Your task to perform on an android device: Go to ESPN.com Image 0: 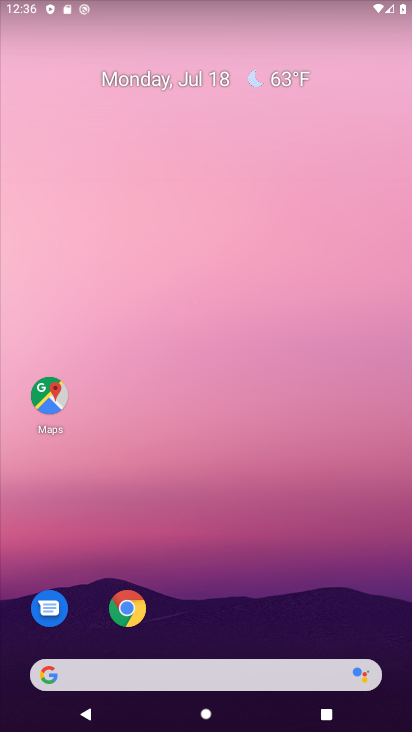
Step 0: drag from (273, 651) to (245, 104)
Your task to perform on an android device: Go to ESPN.com Image 1: 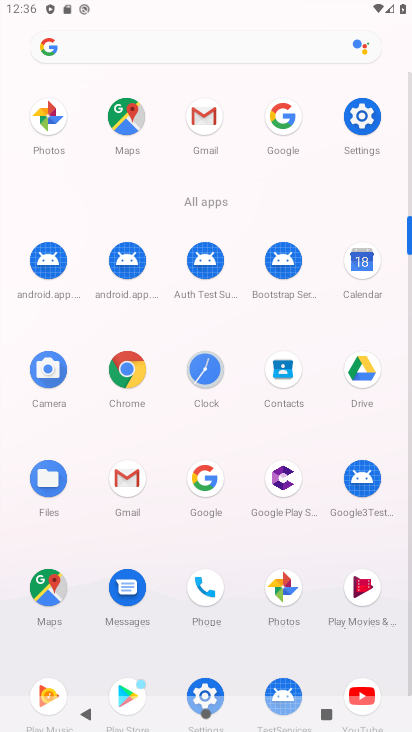
Step 1: click (139, 377)
Your task to perform on an android device: Go to ESPN.com Image 2: 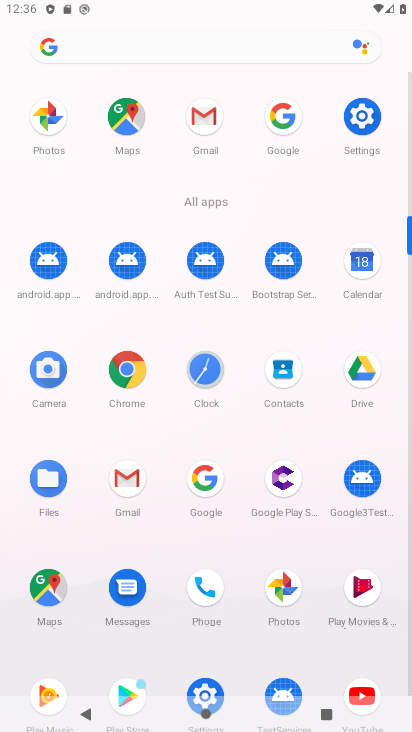
Step 2: click (132, 374)
Your task to perform on an android device: Go to ESPN.com Image 3: 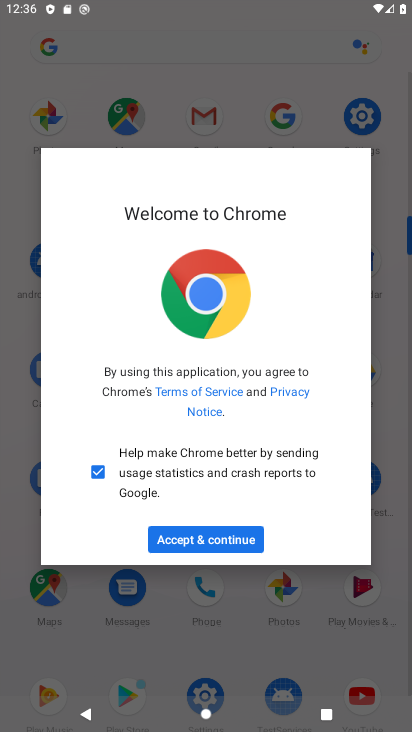
Step 3: click (240, 541)
Your task to perform on an android device: Go to ESPN.com Image 4: 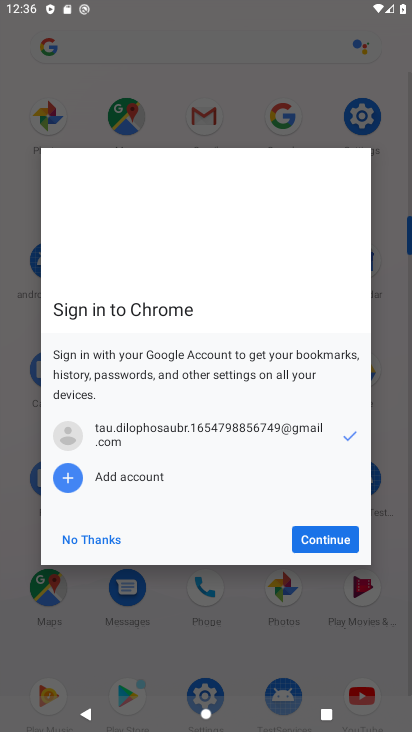
Step 4: click (342, 522)
Your task to perform on an android device: Go to ESPN.com Image 5: 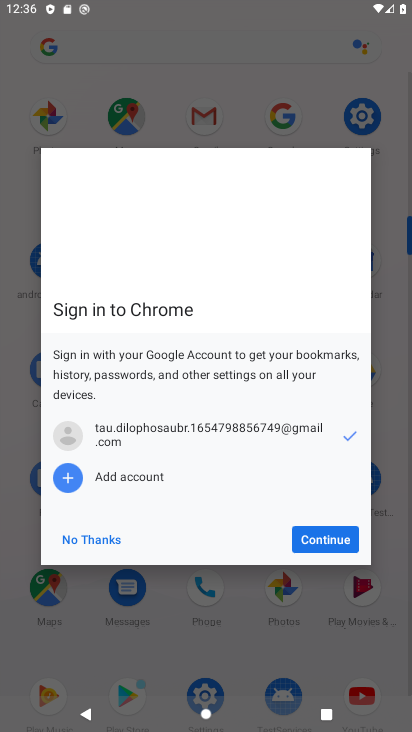
Step 5: click (94, 542)
Your task to perform on an android device: Go to ESPN.com Image 6: 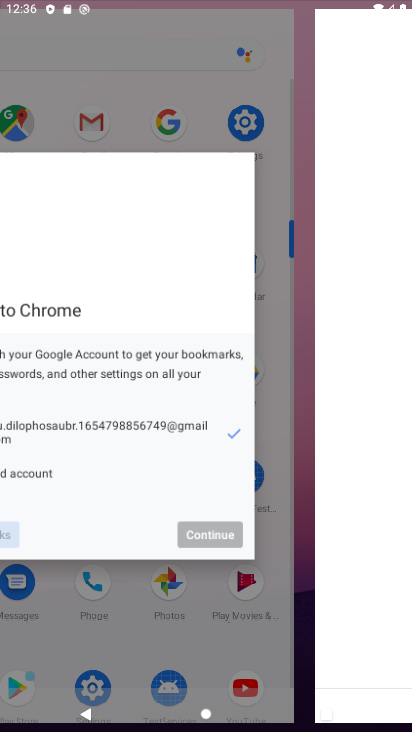
Step 6: click (86, 542)
Your task to perform on an android device: Go to ESPN.com Image 7: 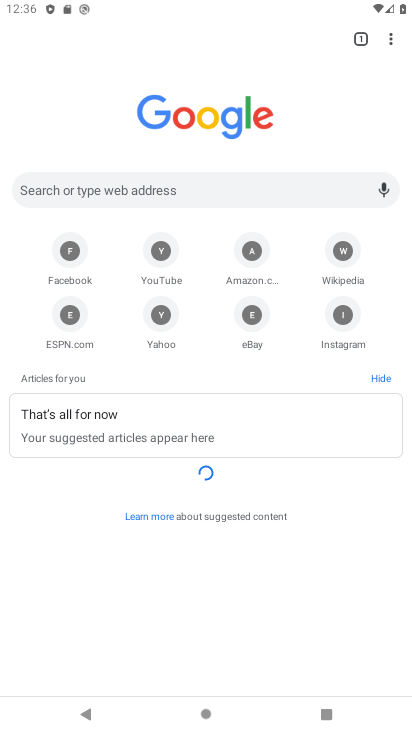
Step 7: click (85, 535)
Your task to perform on an android device: Go to ESPN.com Image 8: 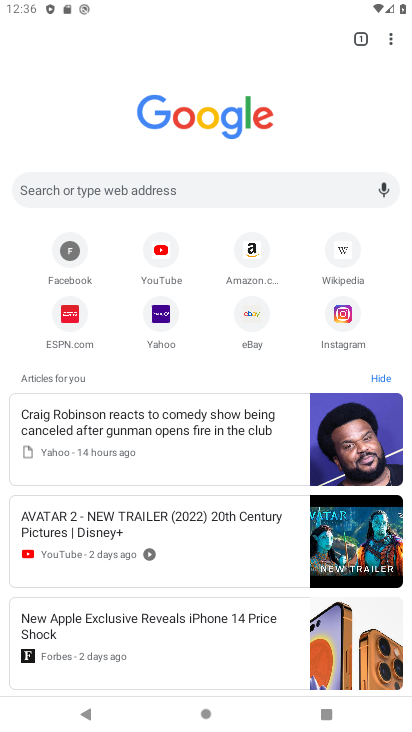
Step 8: click (70, 315)
Your task to perform on an android device: Go to ESPN.com Image 9: 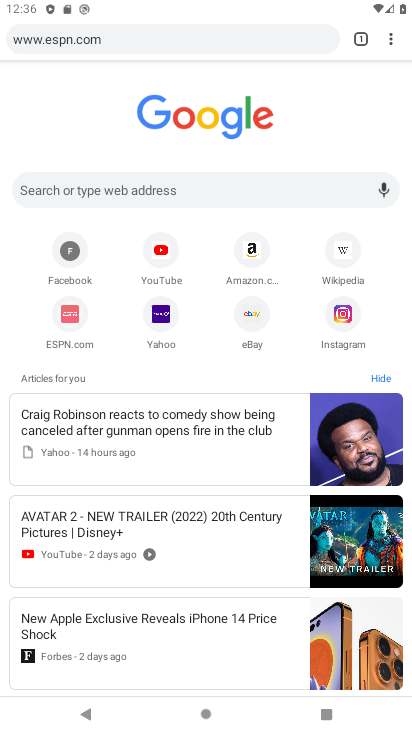
Step 9: click (65, 334)
Your task to perform on an android device: Go to ESPN.com Image 10: 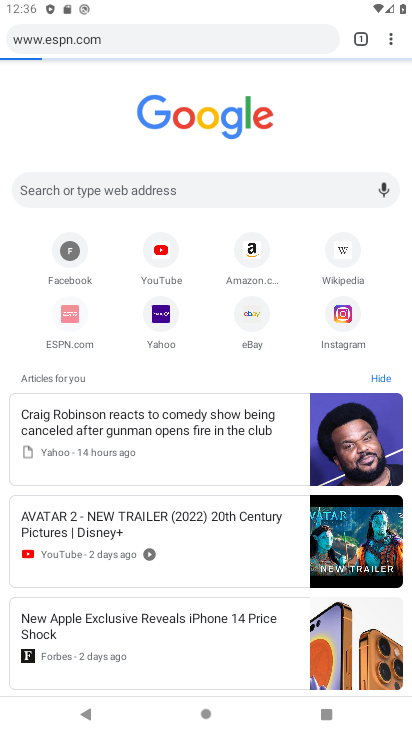
Step 10: click (88, 328)
Your task to perform on an android device: Go to ESPN.com Image 11: 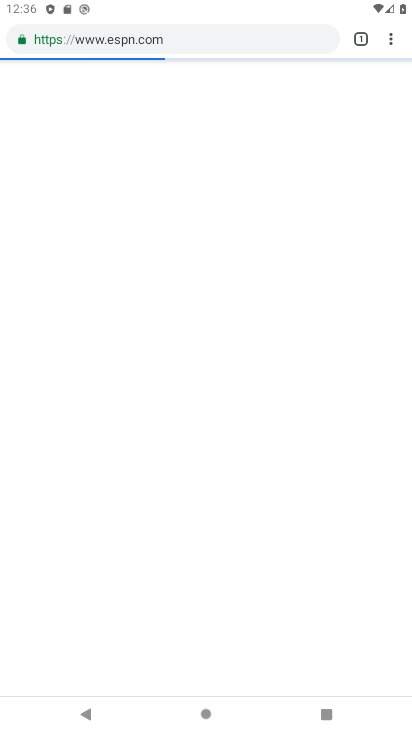
Step 11: click (75, 319)
Your task to perform on an android device: Go to ESPN.com Image 12: 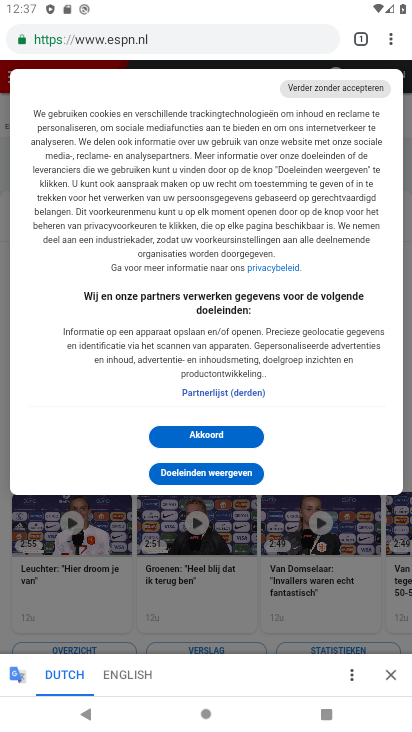
Step 12: task complete